Your task to perform on an android device: Open calendar and show me the fourth week of next month Image 0: 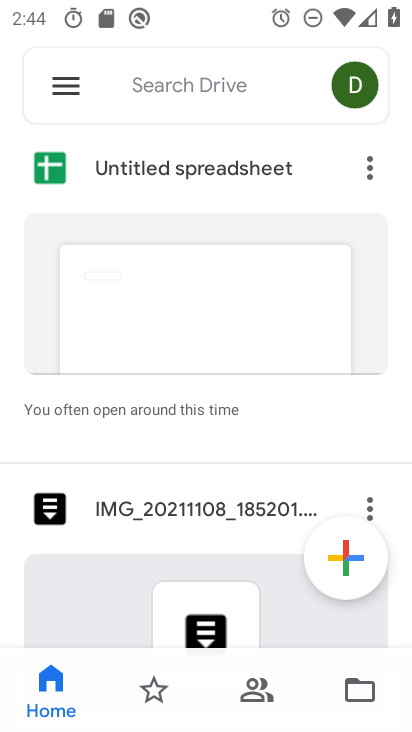
Step 0: press home button
Your task to perform on an android device: Open calendar and show me the fourth week of next month Image 1: 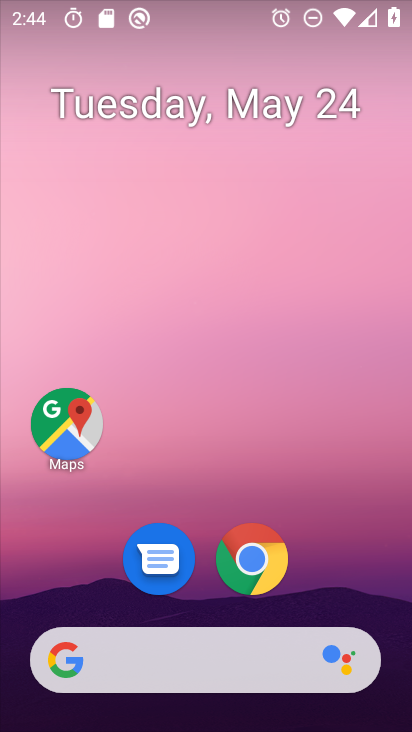
Step 1: drag from (389, 710) to (356, 215)
Your task to perform on an android device: Open calendar and show me the fourth week of next month Image 2: 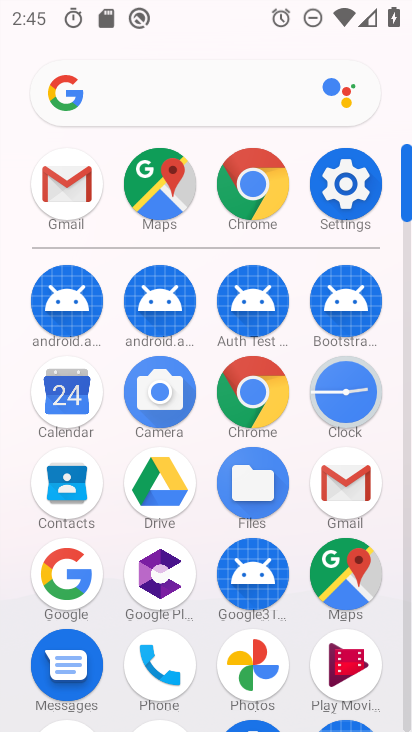
Step 2: click (65, 391)
Your task to perform on an android device: Open calendar and show me the fourth week of next month Image 3: 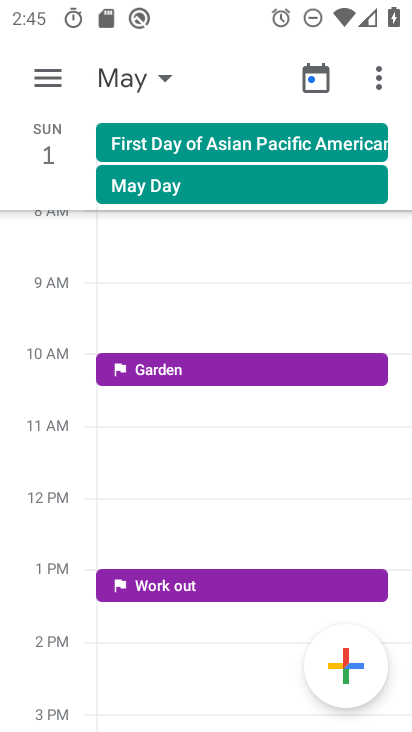
Step 3: click (158, 74)
Your task to perform on an android device: Open calendar and show me the fourth week of next month Image 4: 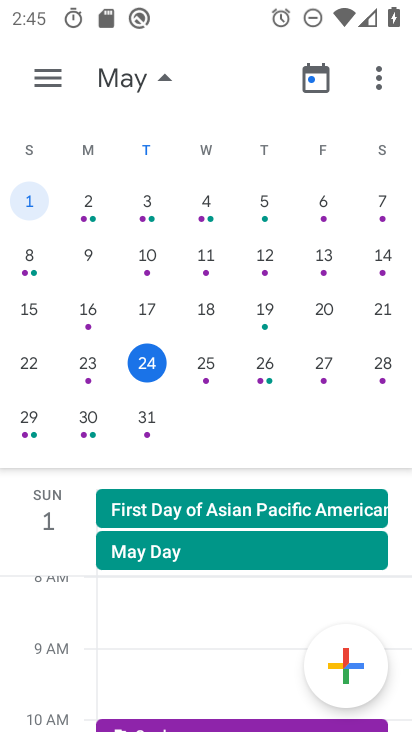
Step 4: drag from (402, 202) to (178, 191)
Your task to perform on an android device: Open calendar and show me the fourth week of next month Image 5: 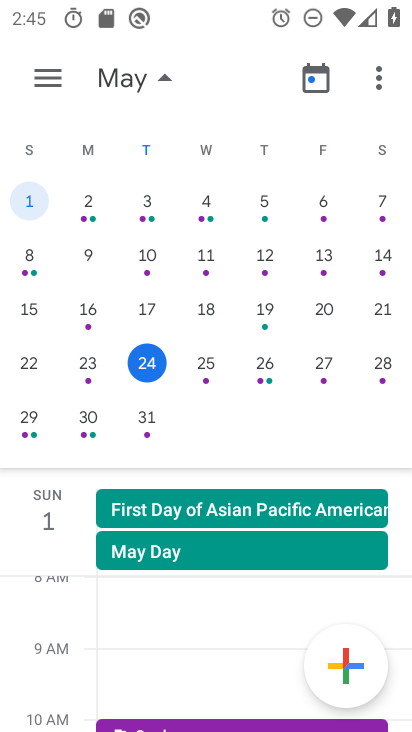
Step 5: drag from (406, 286) to (46, 302)
Your task to perform on an android device: Open calendar and show me the fourth week of next month Image 6: 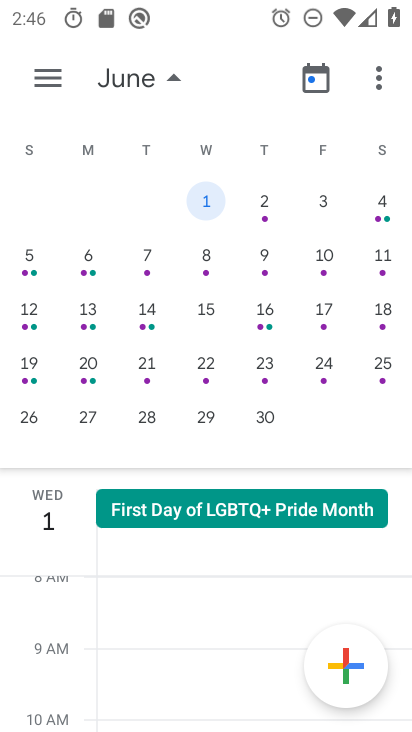
Step 6: click (205, 359)
Your task to perform on an android device: Open calendar and show me the fourth week of next month Image 7: 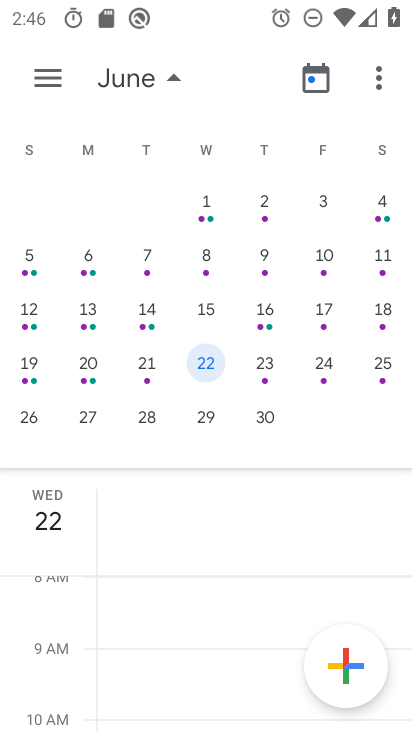
Step 7: click (57, 68)
Your task to perform on an android device: Open calendar and show me the fourth week of next month Image 8: 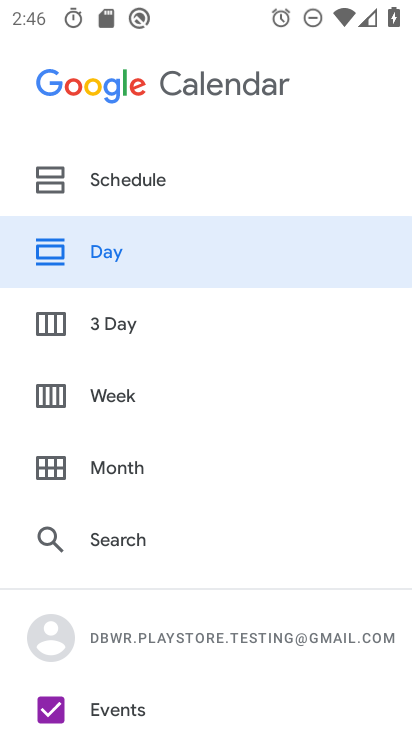
Step 8: click (96, 392)
Your task to perform on an android device: Open calendar and show me the fourth week of next month Image 9: 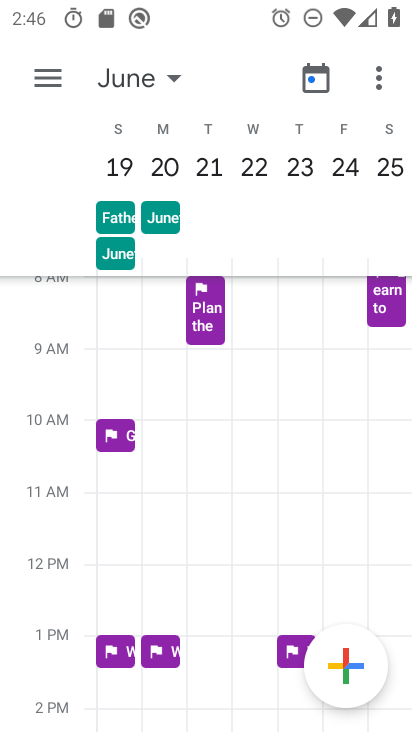
Step 9: task complete